Your task to perform on an android device: turn off wifi Image 0: 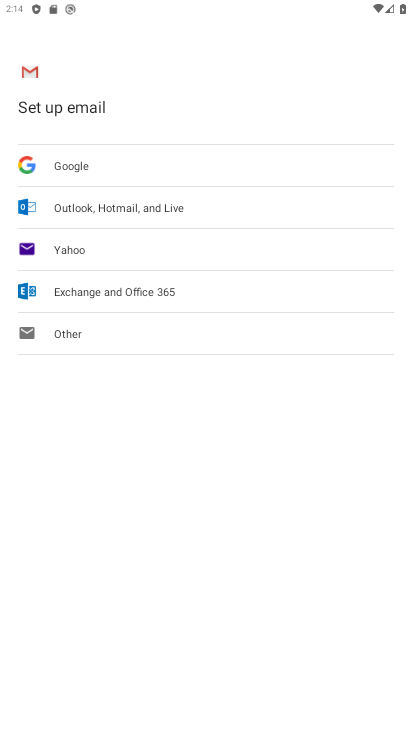
Step 0: drag from (210, 0) to (26, 678)
Your task to perform on an android device: turn off wifi Image 1: 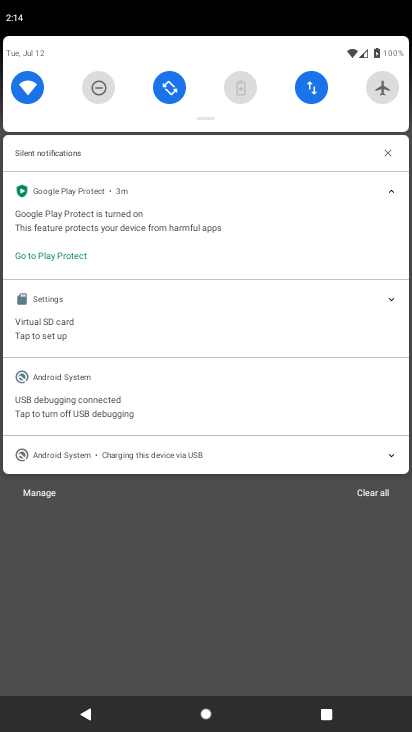
Step 1: click (24, 81)
Your task to perform on an android device: turn off wifi Image 2: 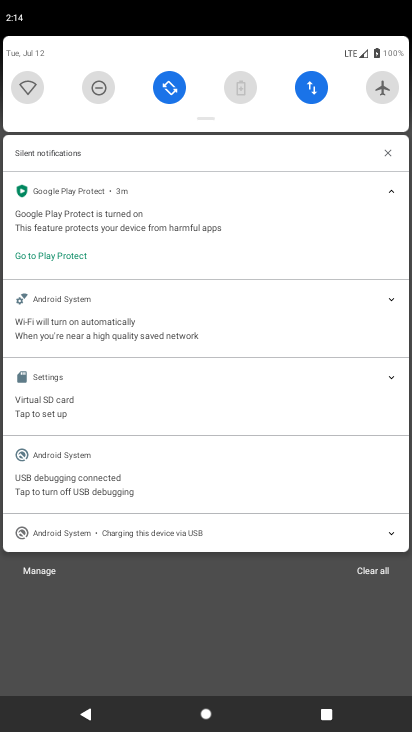
Step 2: task complete